Your task to perform on an android device: Open location settings Image 0: 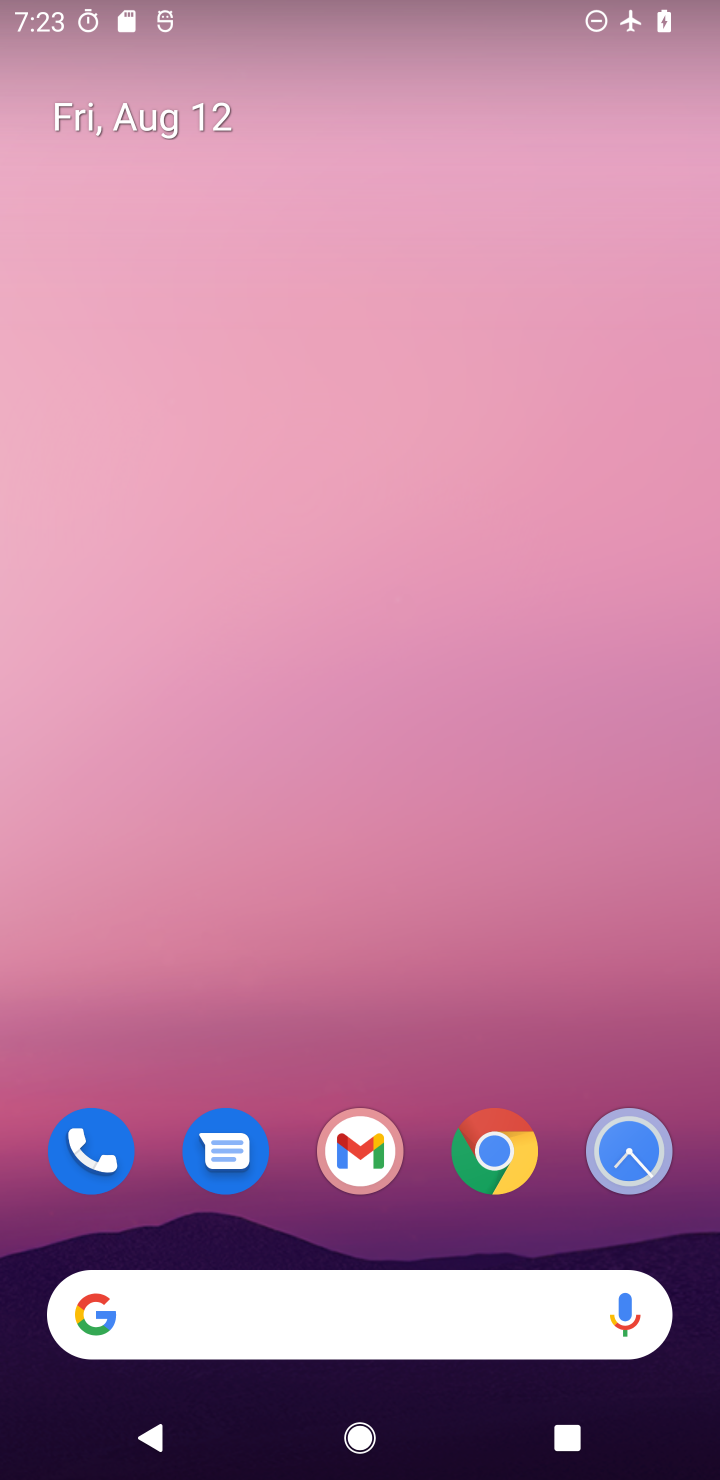
Step 0: drag from (374, 1001) to (470, 16)
Your task to perform on an android device: Open location settings Image 1: 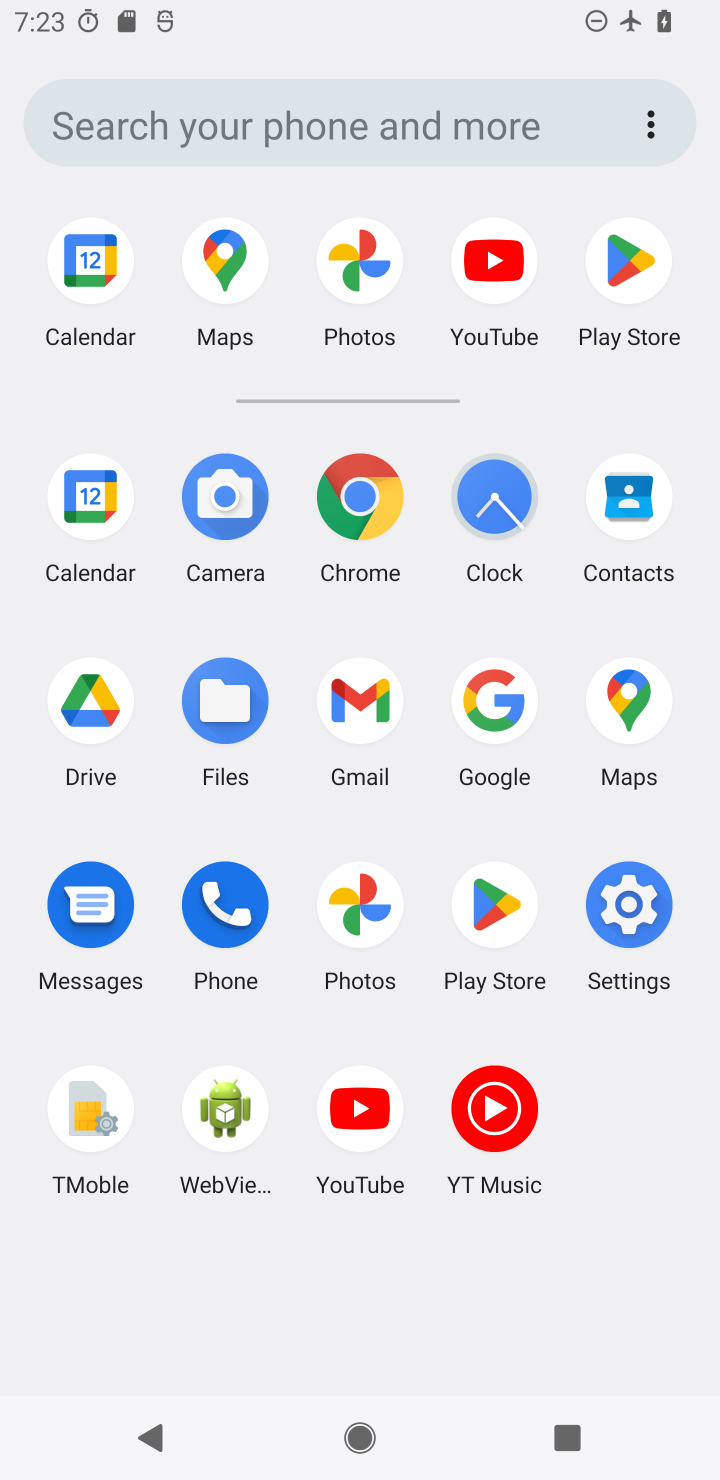
Step 1: click (639, 907)
Your task to perform on an android device: Open location settings Image 2: 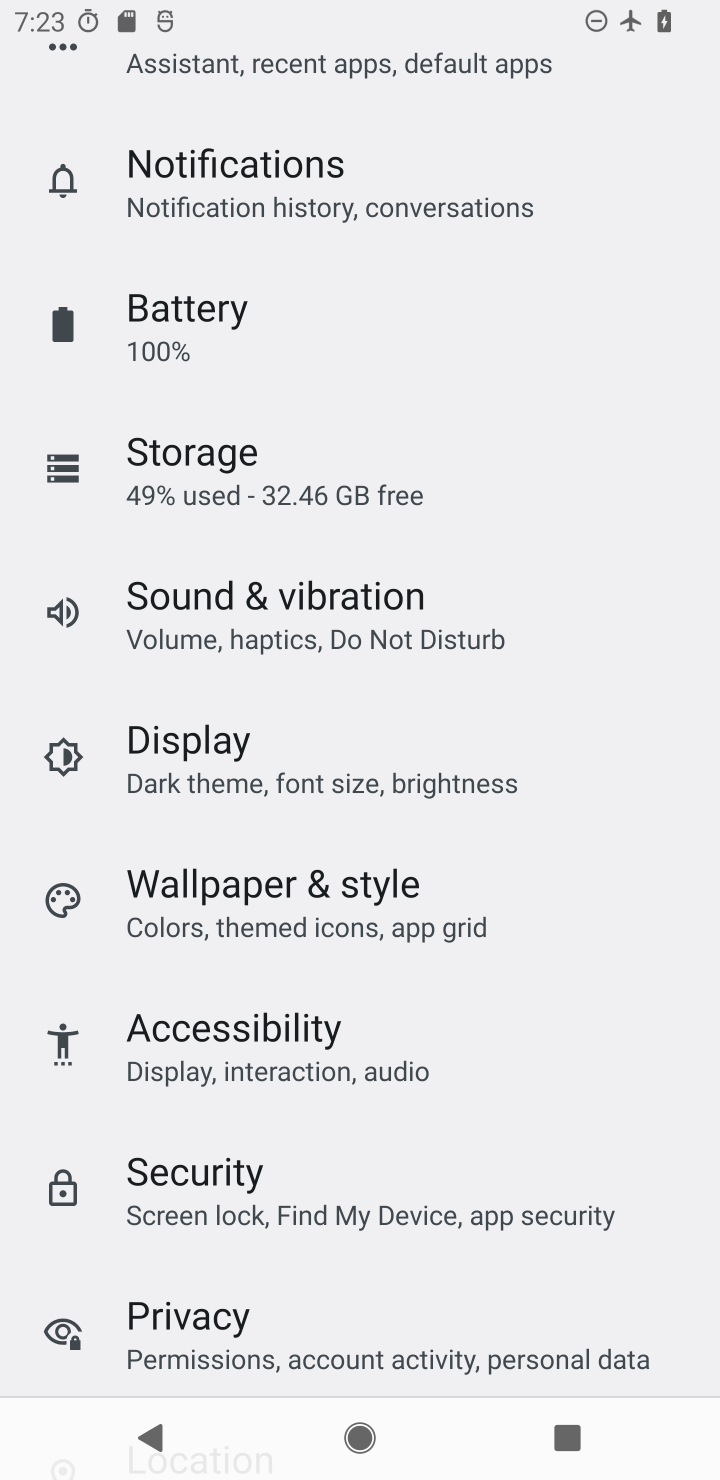
Step 2: drag from (503, 1124) to (583, 117)
Your task to perform on an android device: Open location settings Image 3: 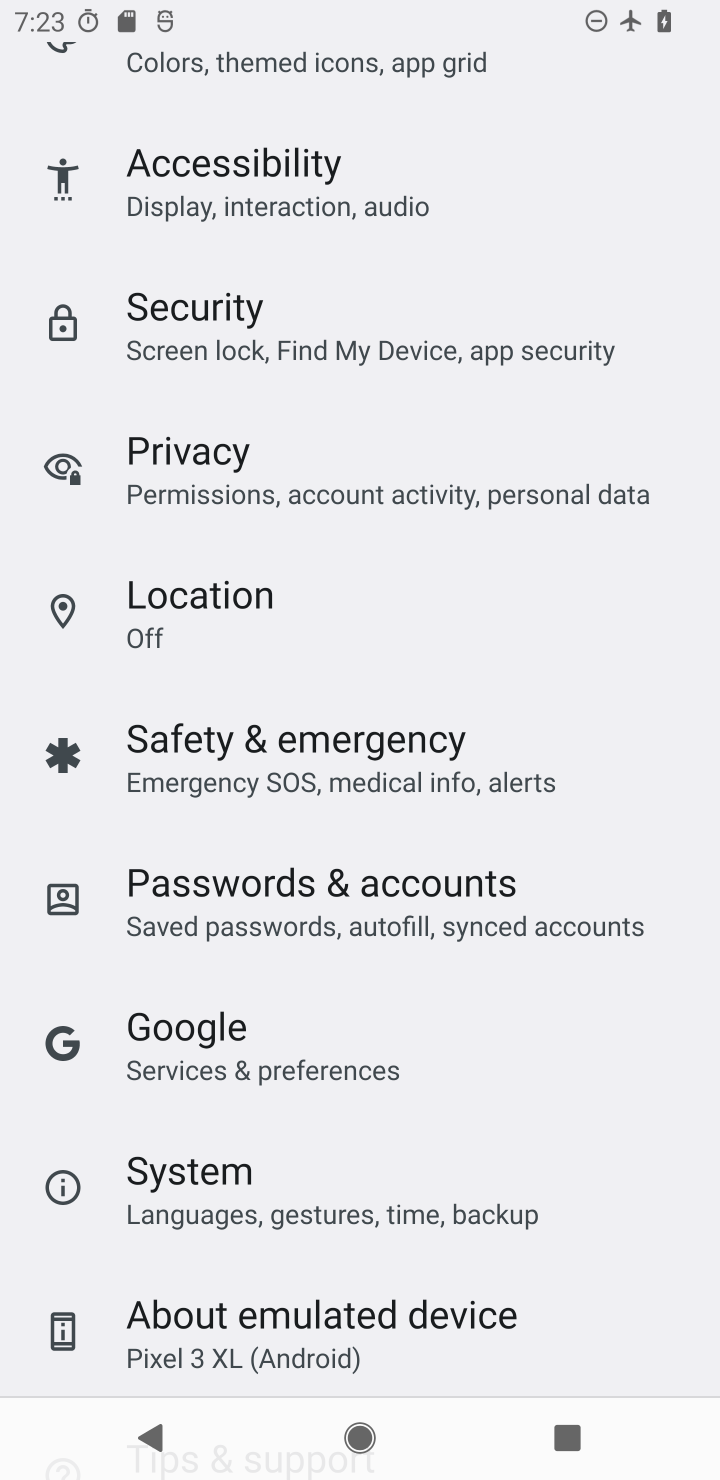
Step 3: click (224, 595)
Your task to perform on an android device: Open location settings Image 4: 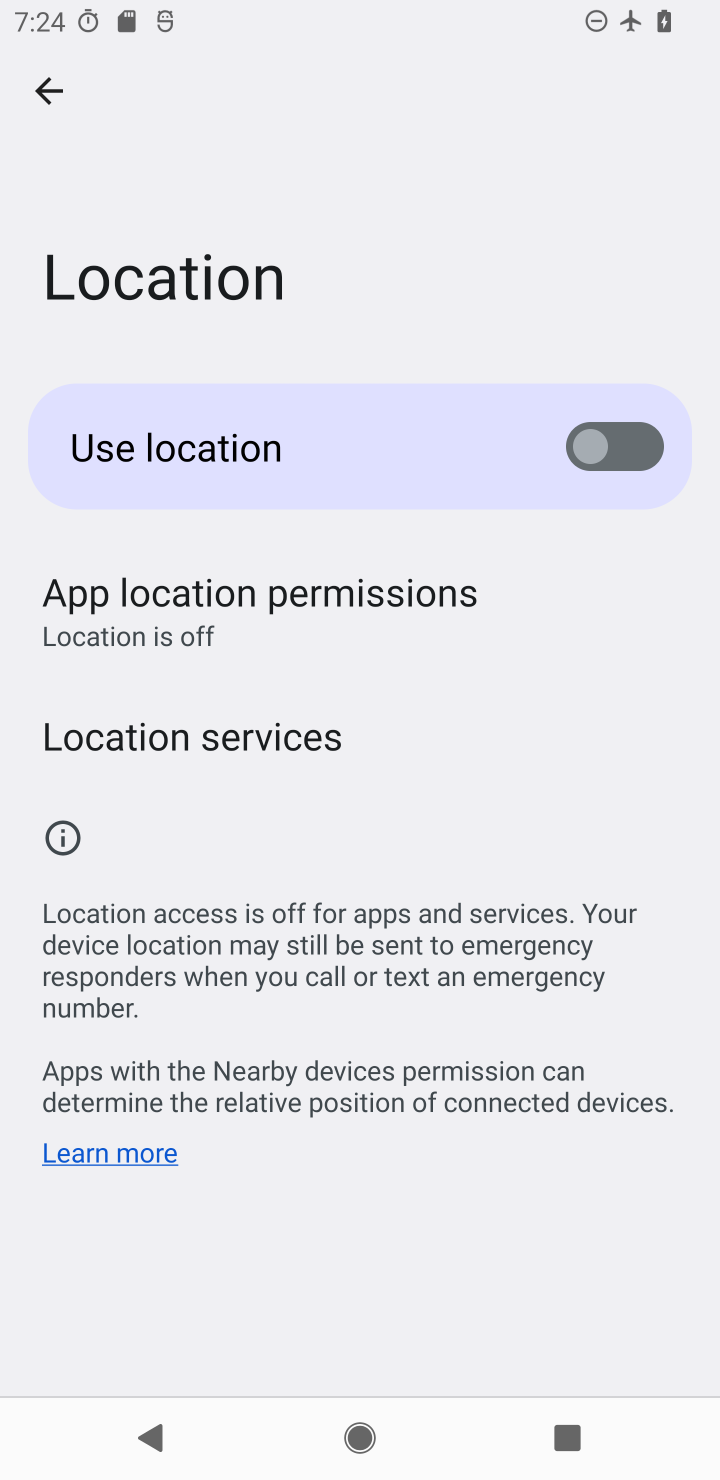
Step 4: task complete